Your task to perform on an android device: Is it going to rain tomorrow? Image 0: 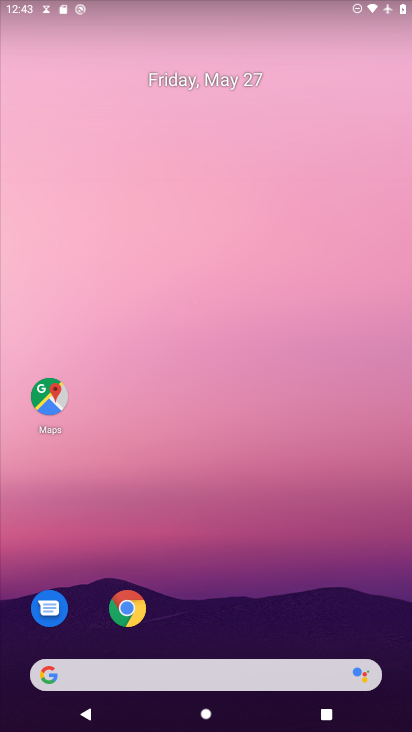
Step 0: press home button
Your task to perform on an android device: Is it going to rain tomorrow? Image 1: 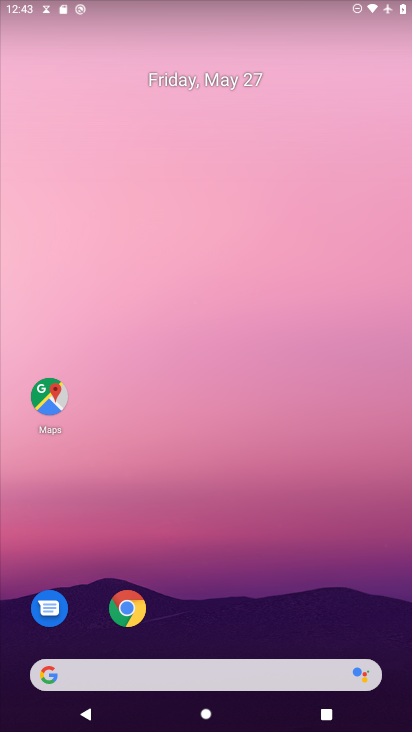
Step 1: click (54, 672)
Your task to perform on an android device: Is it going to rain tomorrow? Image 2: 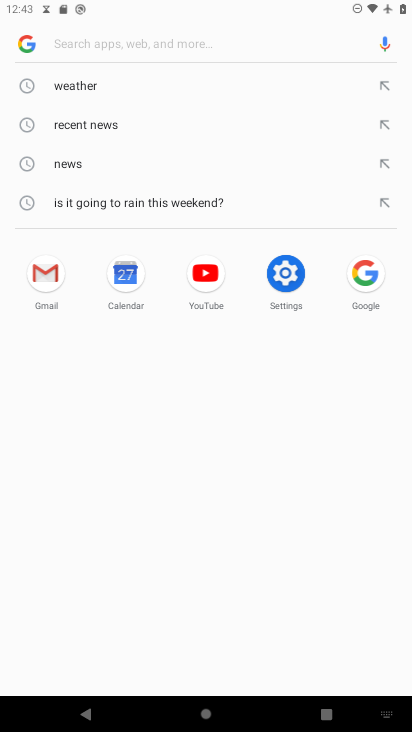
Step 2: click (103, 85)
Your task to perform on an android device: Is it going to rain tomorrow? Image 3: 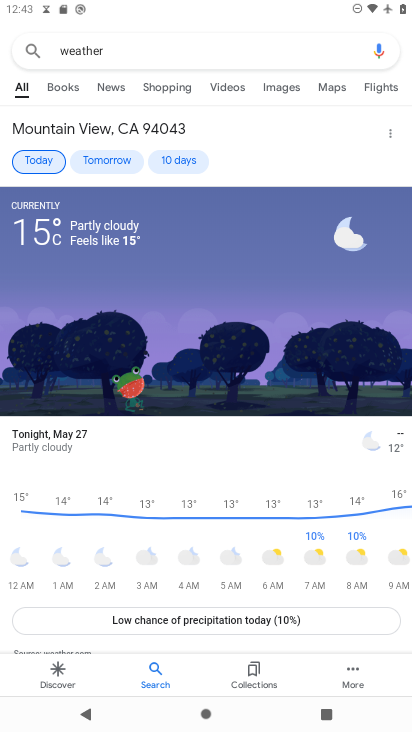
Step 3: click (101, 166)
Your task to perform on an android device: Is it going to rain tomorrow? Image 4: 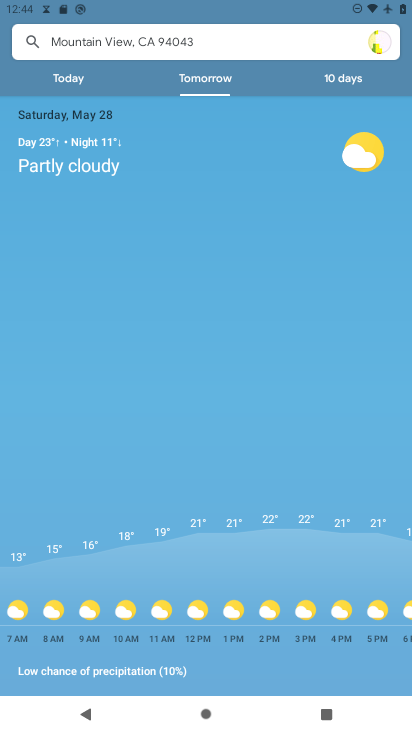
Step 4: task complete